Your task to perform on an android device: open device folders in google photos Image 0: 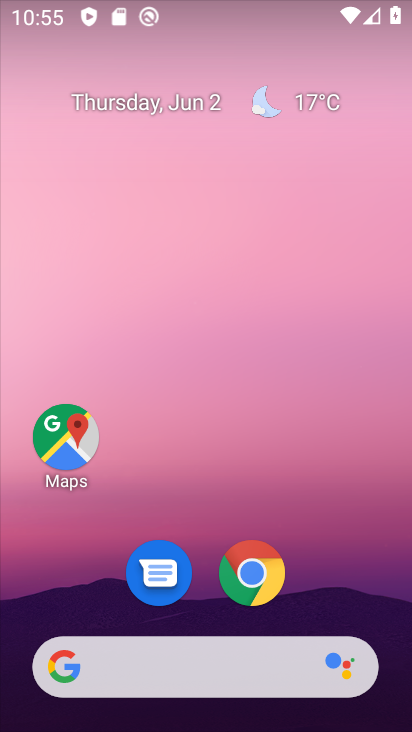
Step 0: task complete